Your task to perform on an android device: Set the phone to "Do not disturb". Image 0: 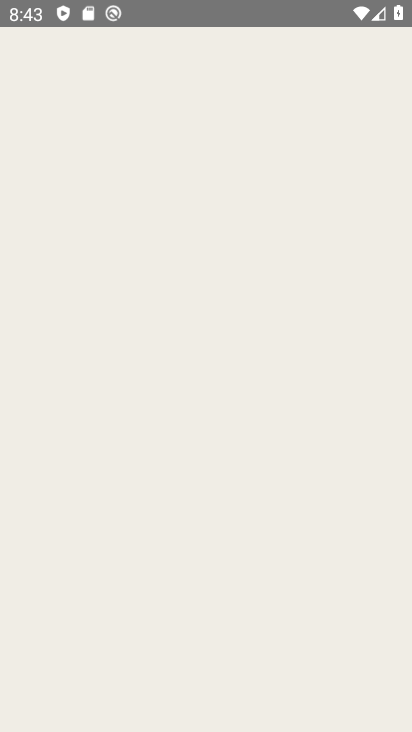
Step 0: press home button
Your task to perform on an android device: Set the phone to "Do not disturb". Image 1: 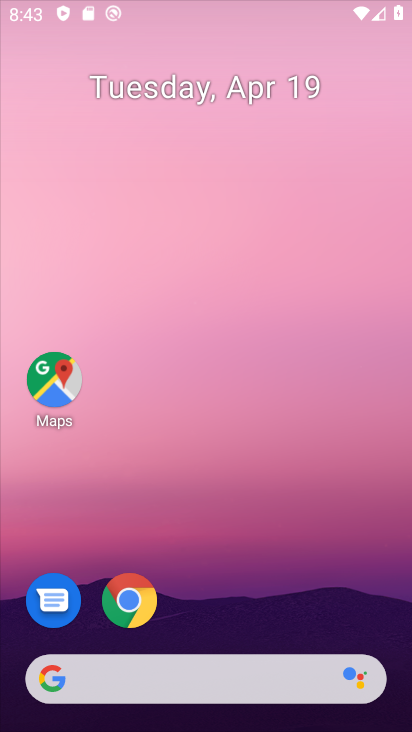
Step 1: drag from (219, 5) to (221, 415)
Your task to perform on an android device: Set the phone to "Do not disturb". Image 2: 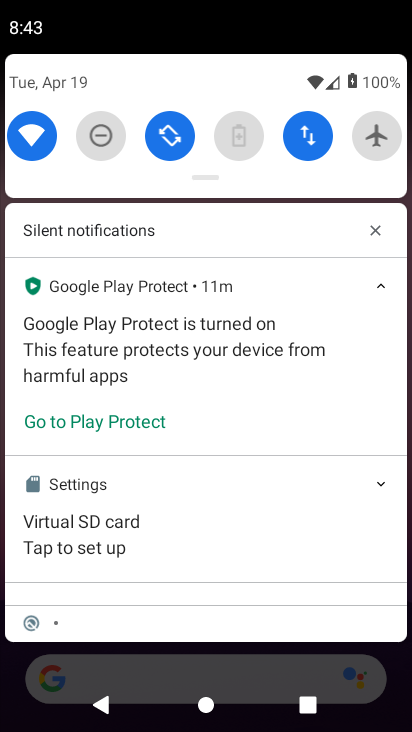
Step 2: click (102, 131)
Your task to perform on an android device: Set the phone to "Do not disturb". Image 3: 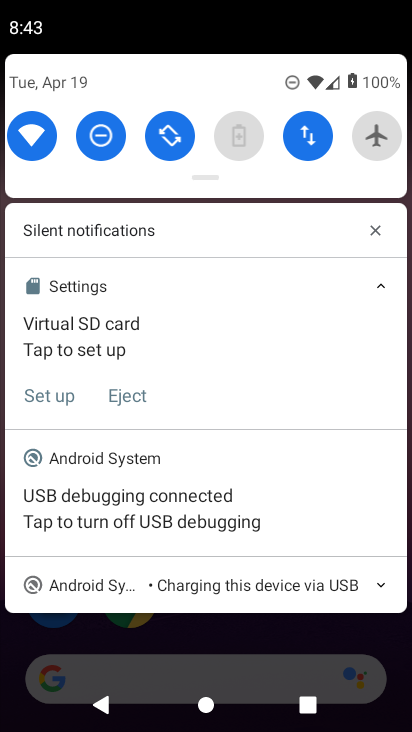
Step 3: task complete